Your task to perform on an android device: Open Chrome and go to settings Image 0: 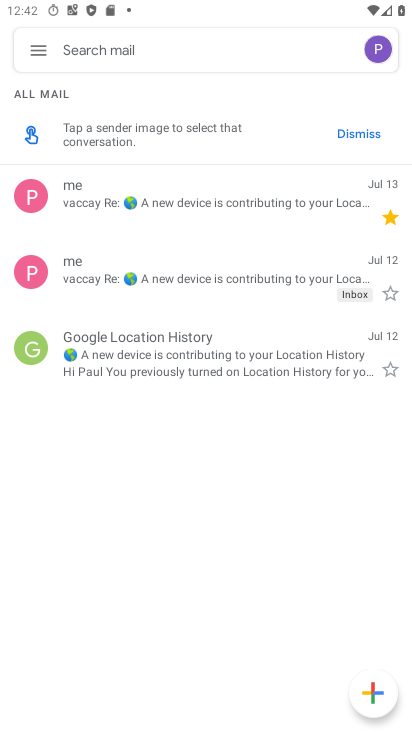
Step 0: press home button
Your task to perform on an android device: Open Chrome and go to settings Image 1: 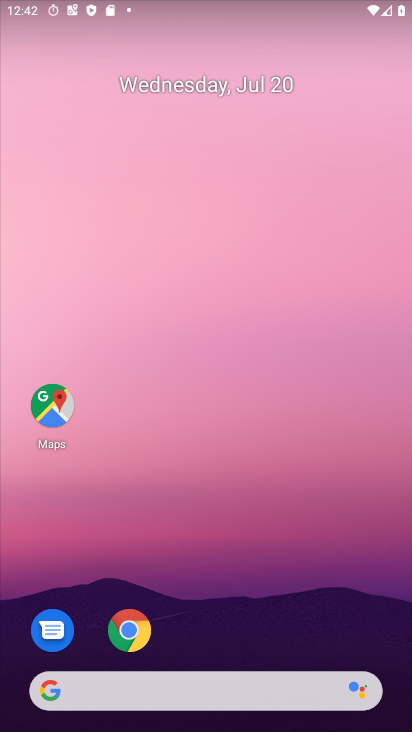
Step 1: click (140, 615)
Your task to perform on an android device: Open Chrome and go to settings Image 2: 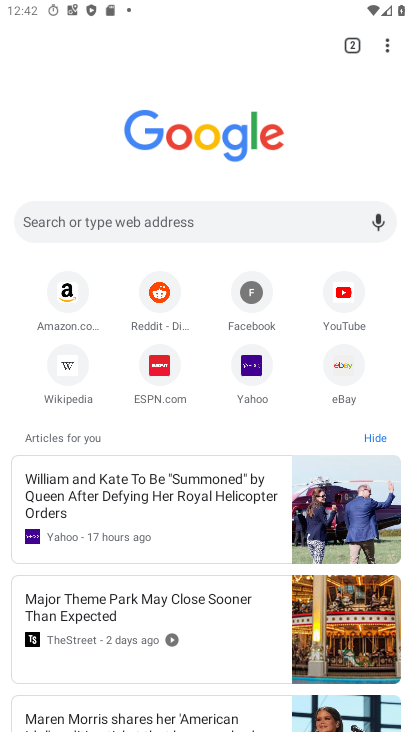
Step 2: click (393, 37)
Your task to perform on an android device: Open Chrome and go to settings Image 3: 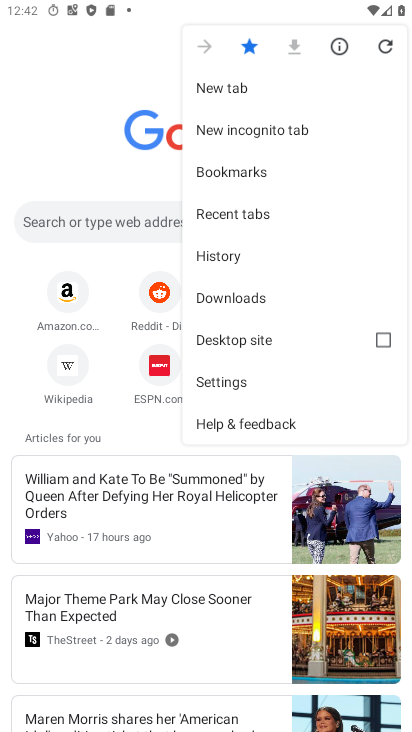
Step 3: click (282, 377)
Your task to perform on an android device: Open Chrome and go to settings Image 4: 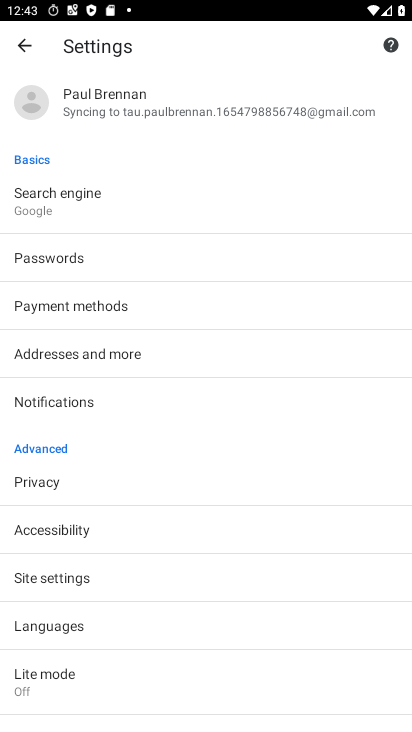
Step 4: task complete